Your task to perform on an android device: Go to Google Image 0: 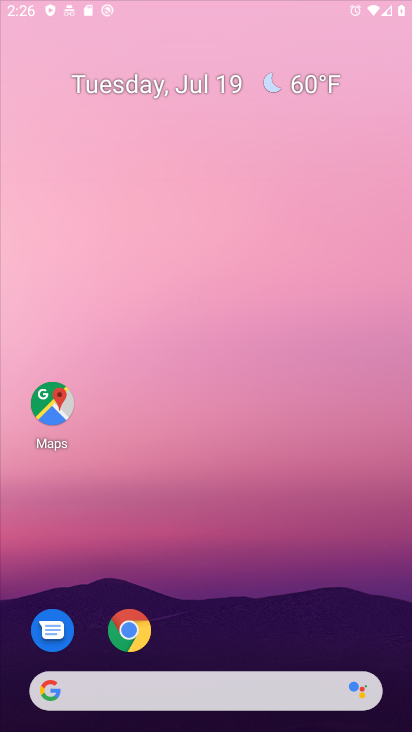
Step 0: press back button
Your task to perform on an android device: Go to Google Image 1: 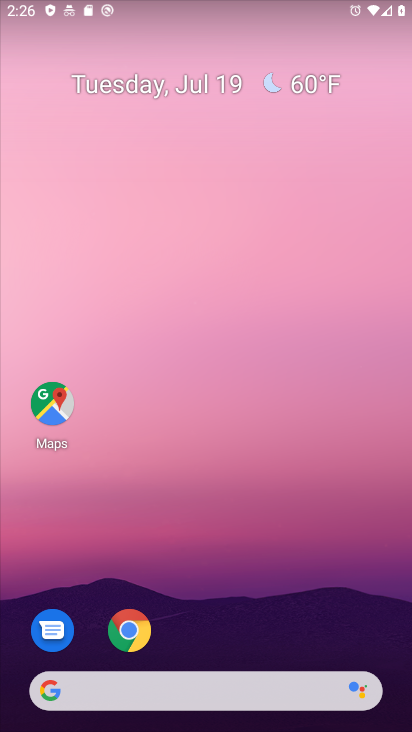
Step 1: press back button
Your task to perform on an android device: Go to Google Image 2: 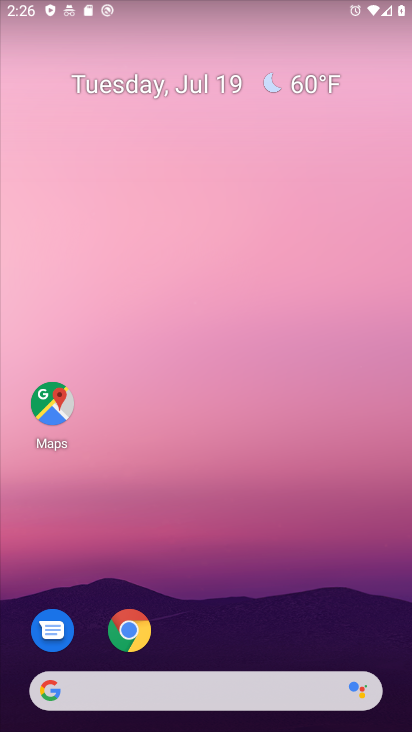
Step 2: click (194, 86)
Your task to perform on an android device: Go to Google Image 3: 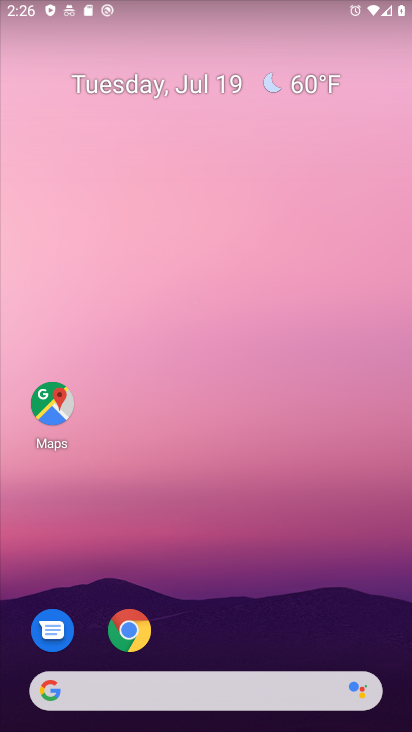
Step 3: drag from (165, 641) to (154, 184)
Your task to perform on an android device: Go to Google Image 4: 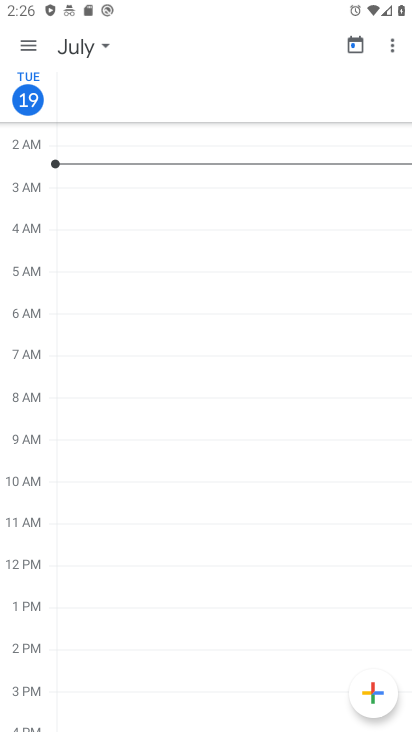
Step 4: drag from (213, 536) to (173, 151)
Your task to perform on an android device: Go to Google Image 5: 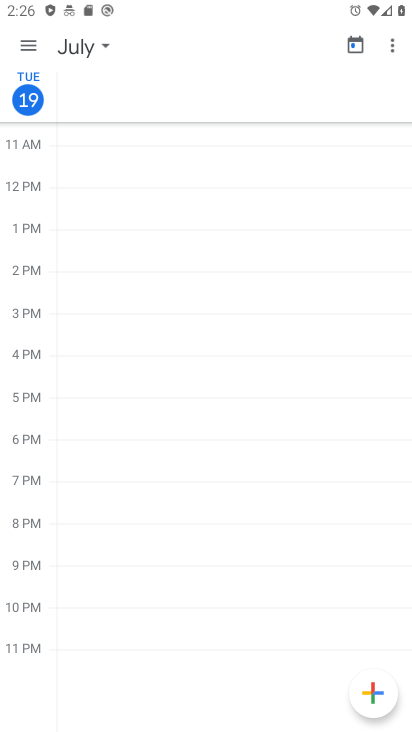
Step 5: press back button
Your task to perform on an android device: Go to Google Image 6: 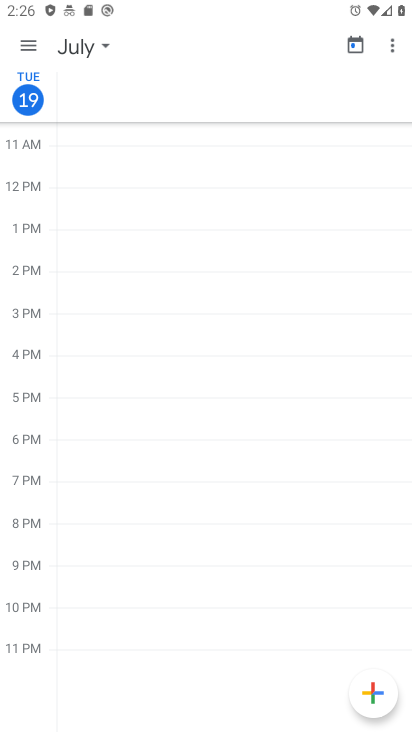
Step 6: press back button
Your task to perform on an android device: Go to Google Image 7: 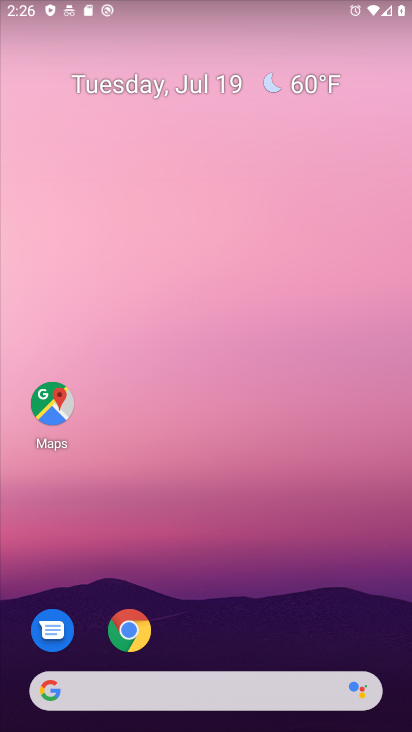
Step 7: drag from (280, 637) to (198, 56)
Your task to perform on an android device: Go to Google Image 8: 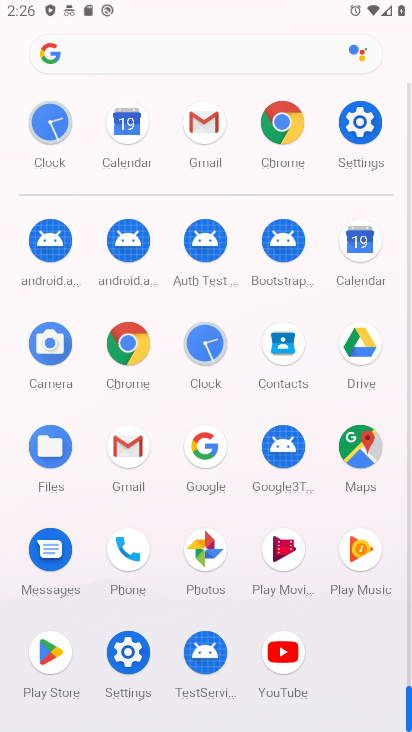
Step 8: click (205, 437)
Your task to perform on an android device: Go to Google Image 9: 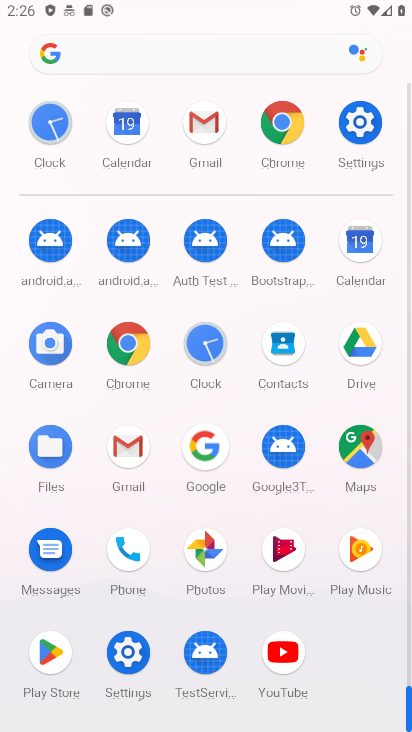
Step 9: click (205, 431)
Your task to perform on an android device: Go to Google Image 10: 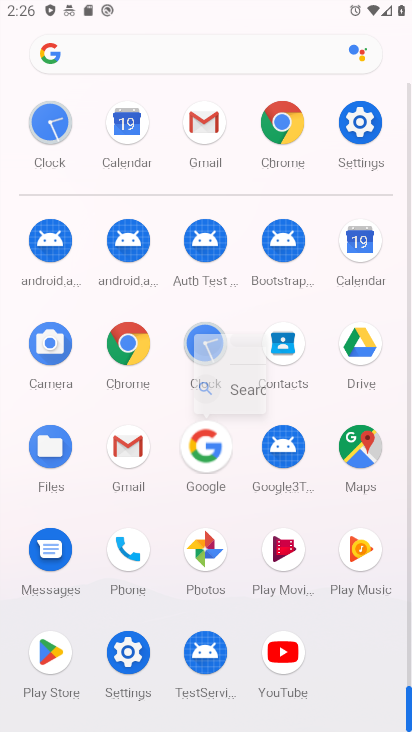
Step 10: click (205, 431)
Your task to perform on an android device: Go to Google Image 11: 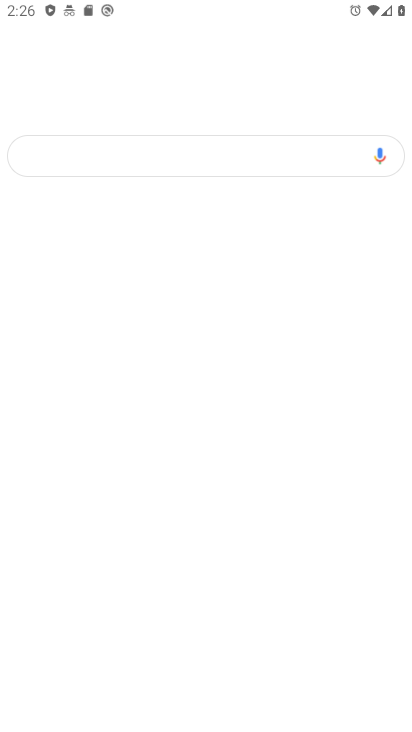
Step 11: click (204, 453)
Your task to perform on an android device: Go to Google Image 12: 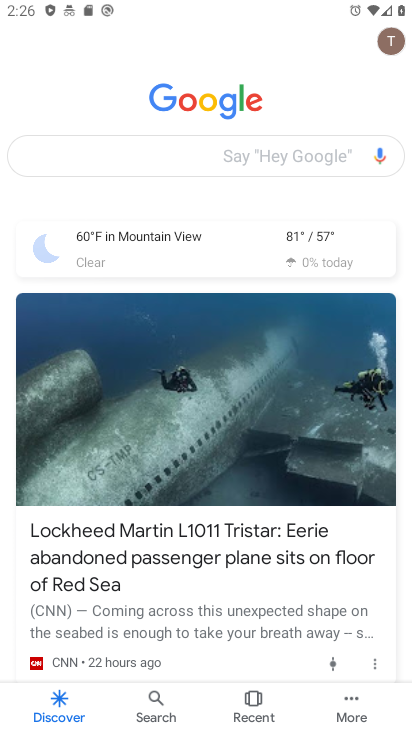
Step 12: task complete